Your task to perform on an android device: turn on the 12-hour format for clock Image 0: 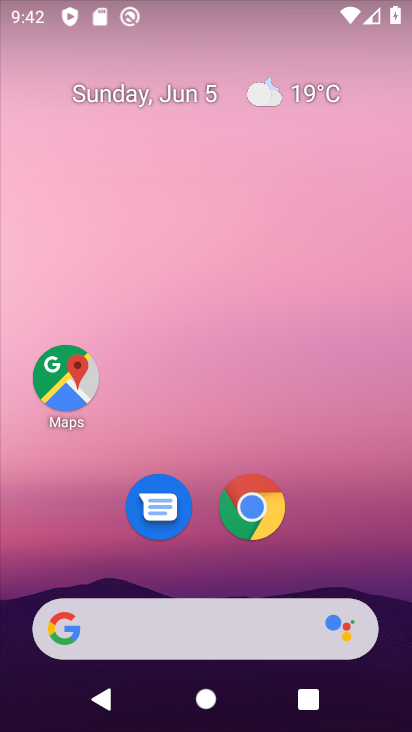
Step 0: drag from (182, 563) to (216, 298)
Your task to perform on an android device: turn on the 12-hour format for clock Image 1: 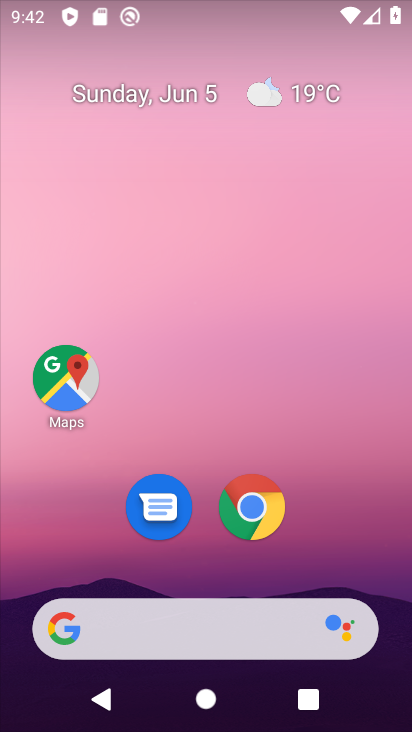
Step 1: drag from (199, 565) to (271, 16)
Your task to perform on an android device: turn on the 12-hour format for clock Image 2: 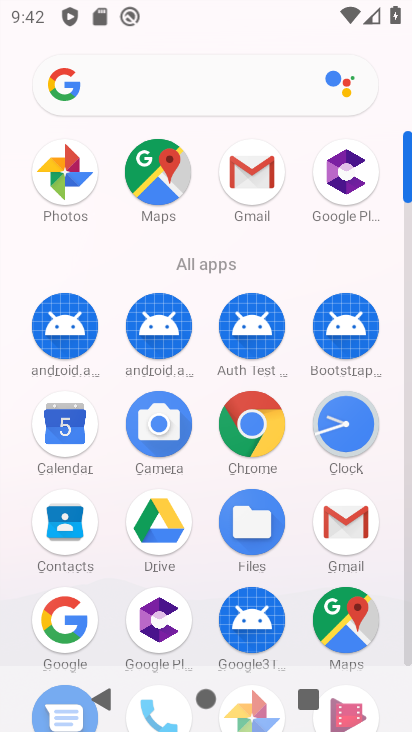
Step 2: click (326, 423)
Your task to perform on an android device: turn on the 12-hour format for clock Image 3: 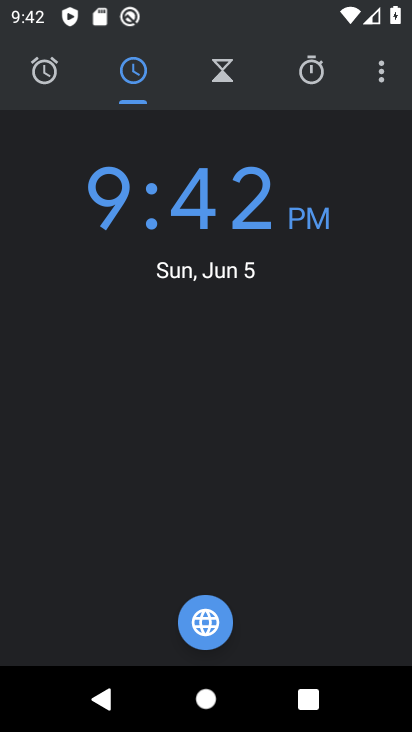
Step 3: click (389, 82)
Your task to perform on an android device: turn on the 12-hour format for clock Image 4: 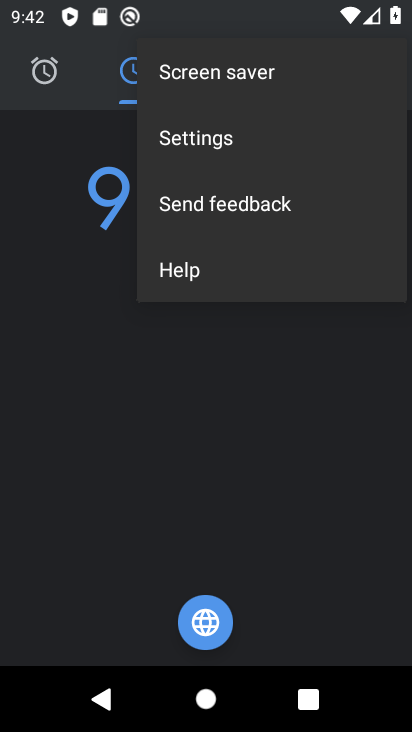
Step 4: click (245, 132)
Your task to perform on an android device: turn on the 12-hour format for clock Image 5: 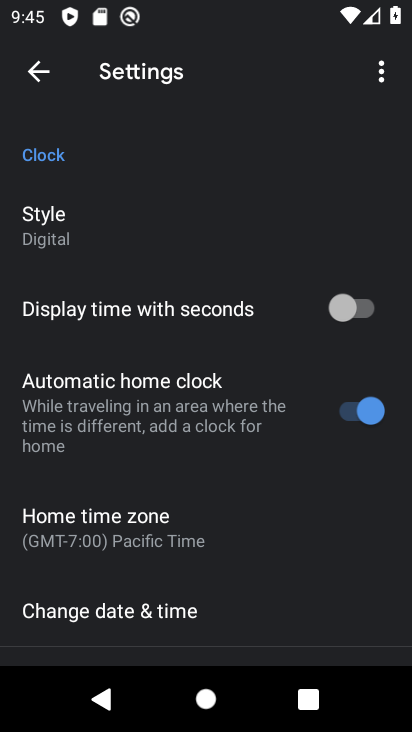
Step 5: task complete